Your task to perform on an android device: turn pop-ups on in chrome Image 0: 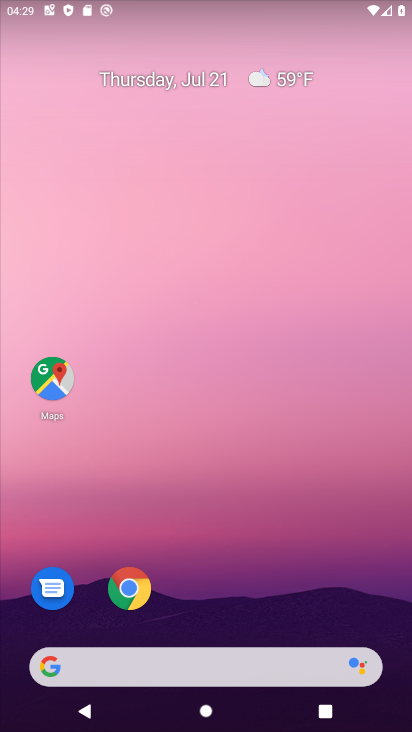
Step 0: drag from (200, 568) to (197, 135)
Your task to perform on an android device: turn pop-ups on in chrome Image 1: 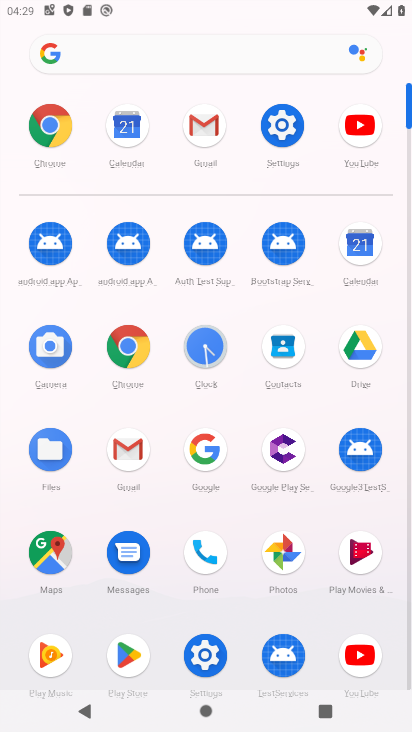
Step 1: click (139, 359)
Your task to perform on an android device: turn pop-ups on in chrome Image 2: 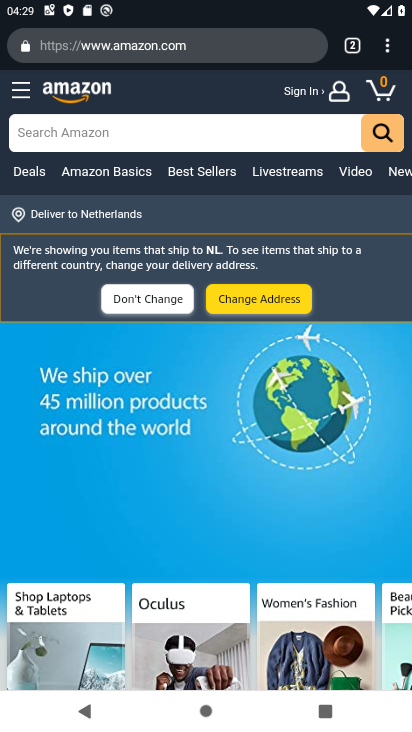
Step 2: click (393, 48)
Your task to perform on an android device: turn pop-ups on in chrome Image 3: 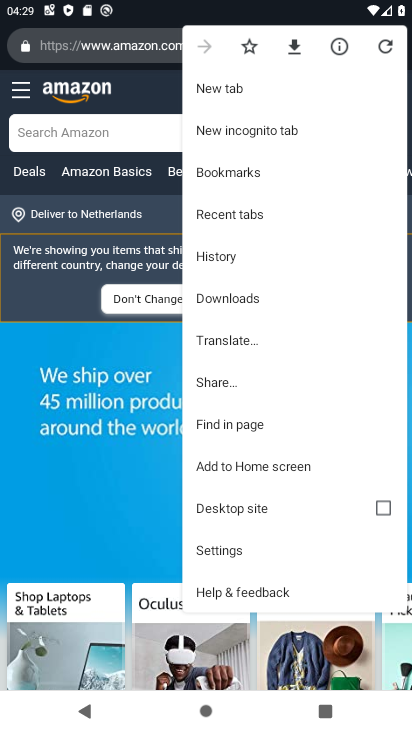
Step 3: click (229, 550)
Your task to perform on an android device: turn pop-ups on in chrome Image 4: 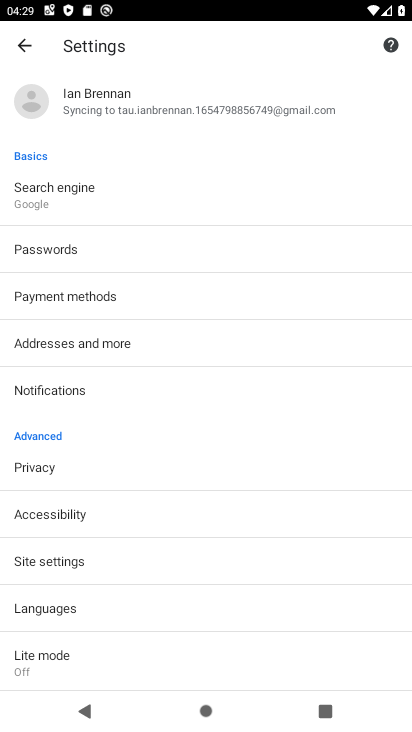
Step 4: click (89, 557)
Your task to perform on an android device: turn pop-ups on in chrome Image 5: 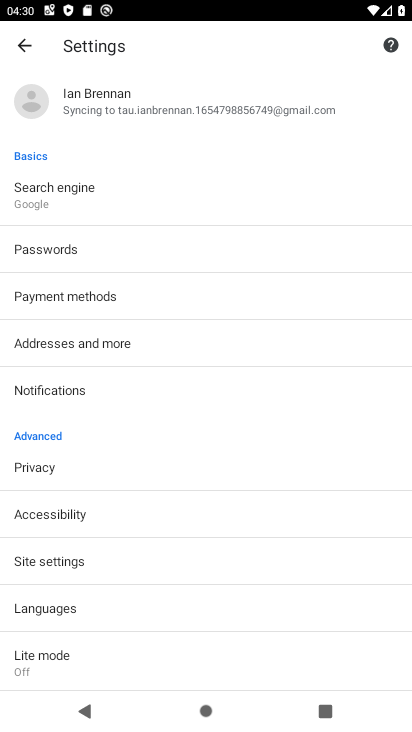
Step 5: click (67, 564)
Your task to perform on an android device: turn pop-ups on in chrome Image 6: 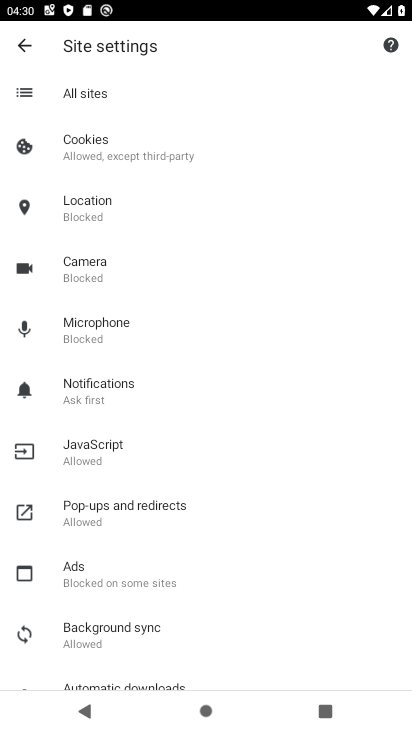
Step 6: click (145, 510)
Your task to perform on an android device: turn pop-ups on in chrome Image 7: 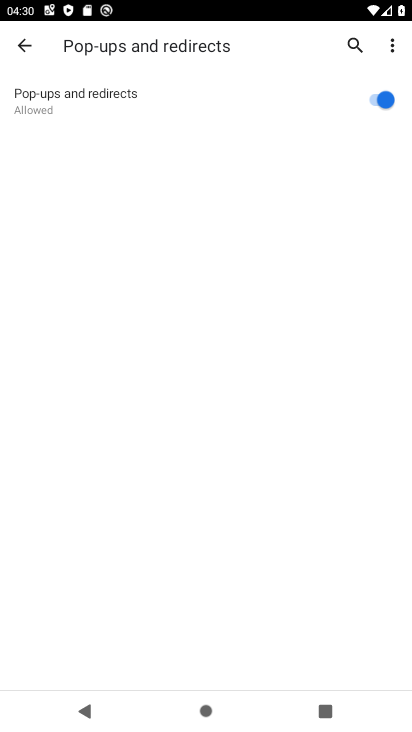
Step 7: task complete